Your task to perform on an android device: move a message to another label in the gmail app Image 0: 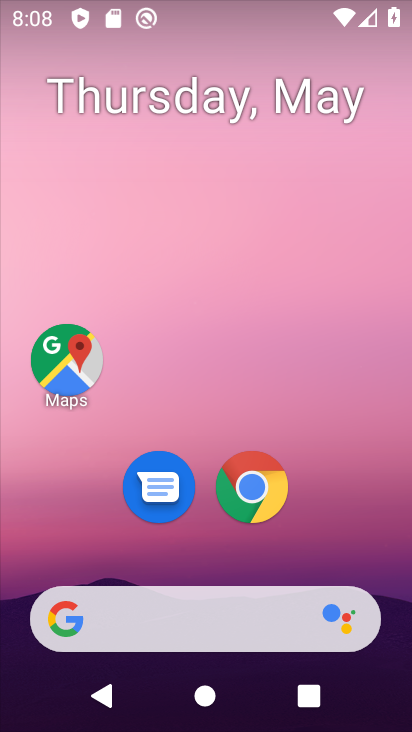
Step 0: drag from (348, 593) to (256, 43)
Your task to perform on an android device: move a message to another label in the gmail app Image 1: 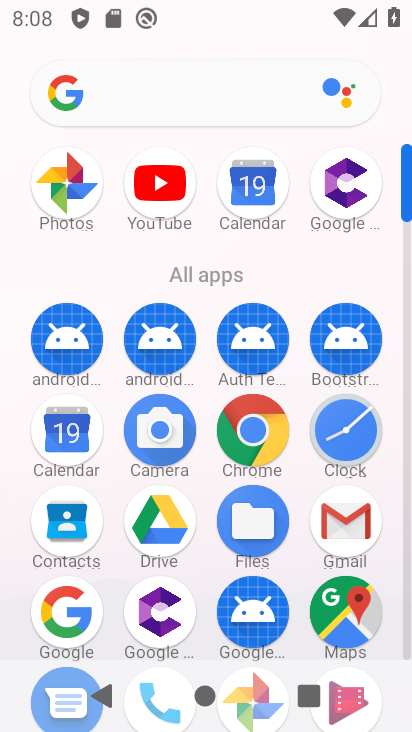
Step 1: click (354, 517)
Your task to perform on an android device: move a message to another label in the gmail app Image 2: 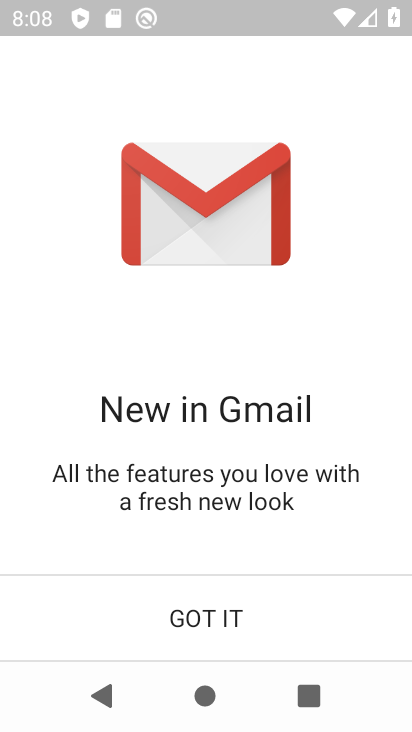
Step 2: click (220, 621)
Your task to perform on an android device: move a message to another label in the gmail app Image 3: 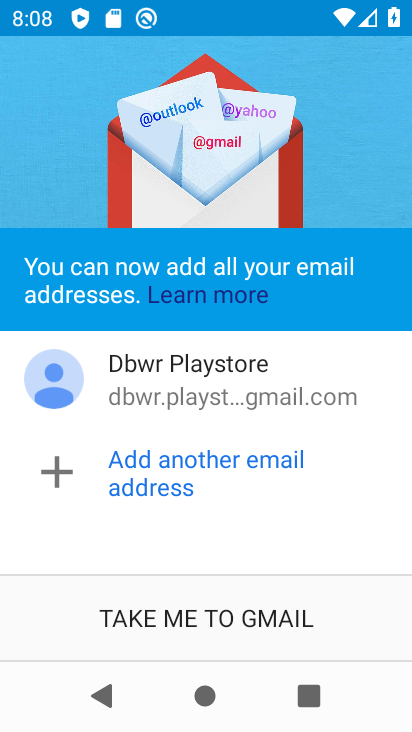
Step 3: click (272, 621)
Your task to perform on an android device: move a message to another label in the gmail app Image 4: 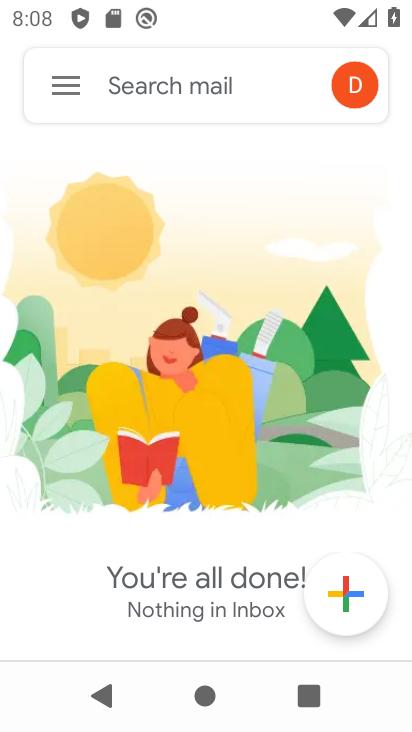
Step 4: click (78, 77)
Your task to perform on an android device: move a message to another label in the gmail app Image 5: 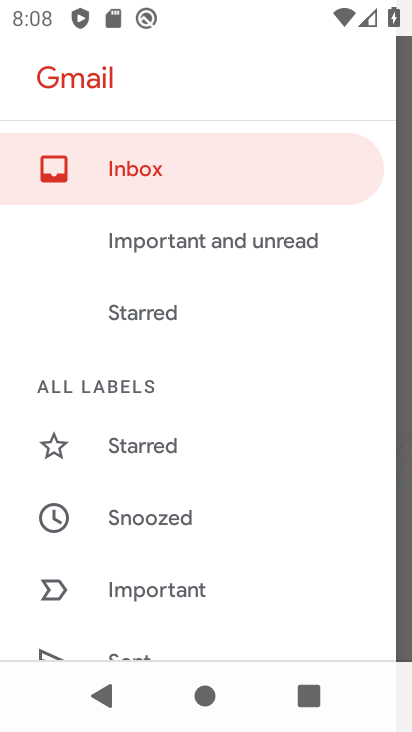
Step 5: drag from (255, 554) to (201, 9)
Your task to perform on an android device: move a message to another label in the gmail app Image 6: 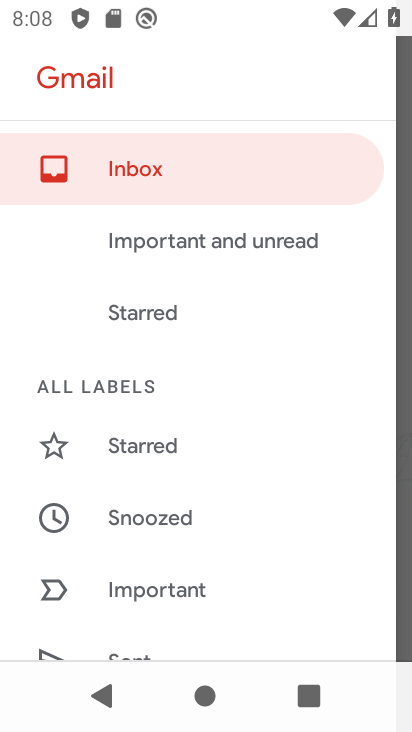
Step 6: drag from (224, 643) to (197, 98)
Your task to perform on an android device: move a message to another label in the gmail app Image 7: 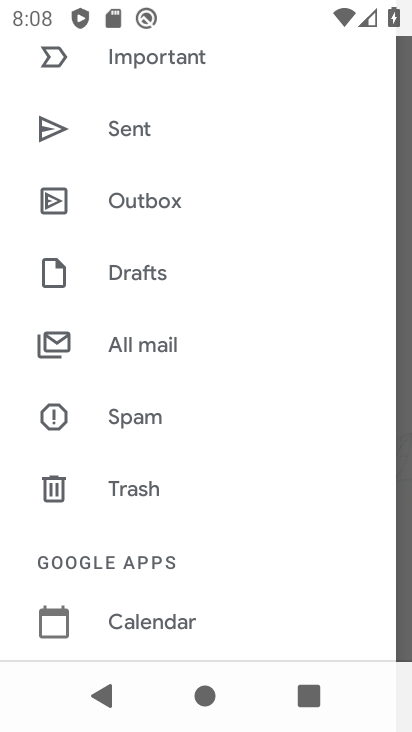
Step 7: click (191, 338)
Your task to perform on an android device: move a message to another label in the gmail app Image 8: 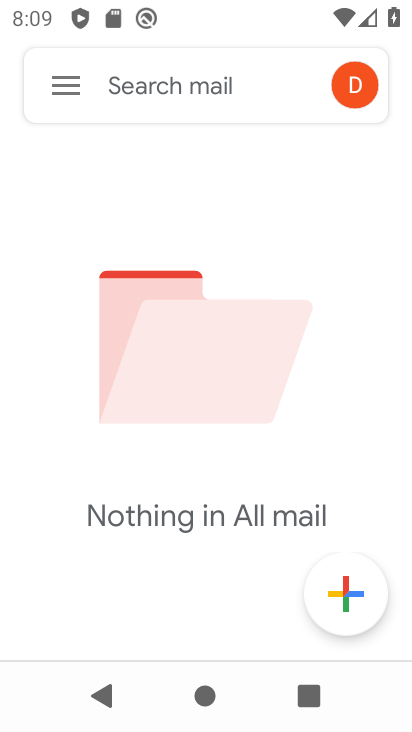
Step 8: task complete